Your task to perform on an android device: Open Google Chrome Image 0: 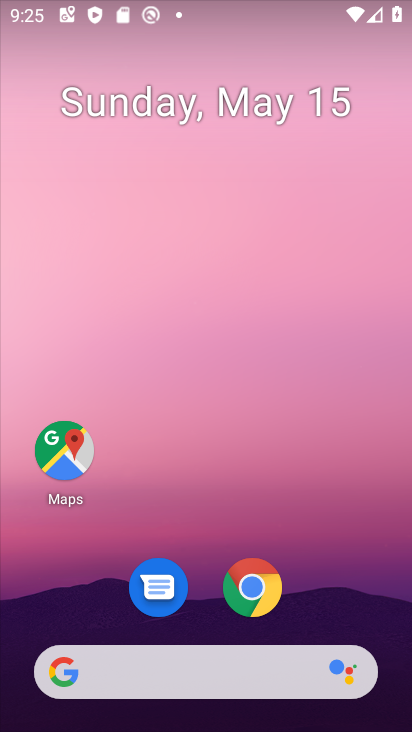
Step 0: drag from (378, 563) to (298, 29)
Your task to perform on an android device: Open Google Chrome Image 1: 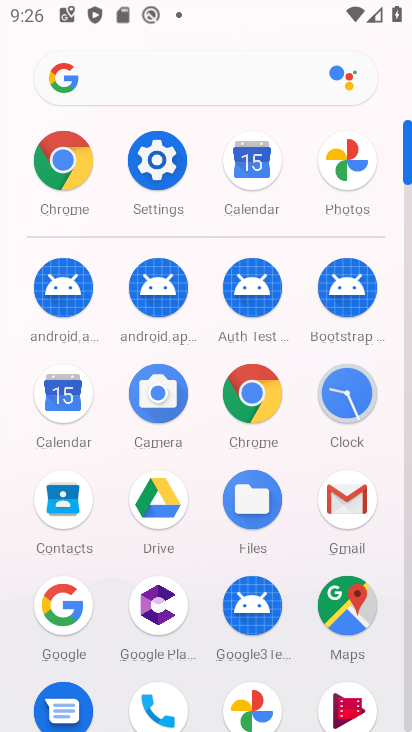
Step 1: click (237, 399)
Your task to perform on an android device: Open Google Chrome Image 2: 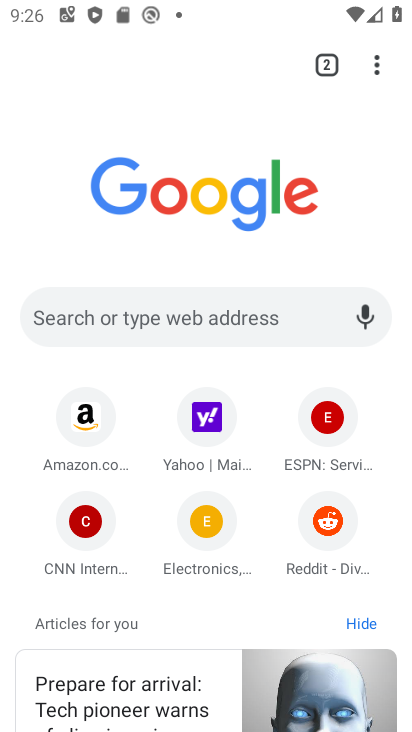
Step 2: task complete